Your task to perform on an android device: Search for the best selling books on Target. Image 0: 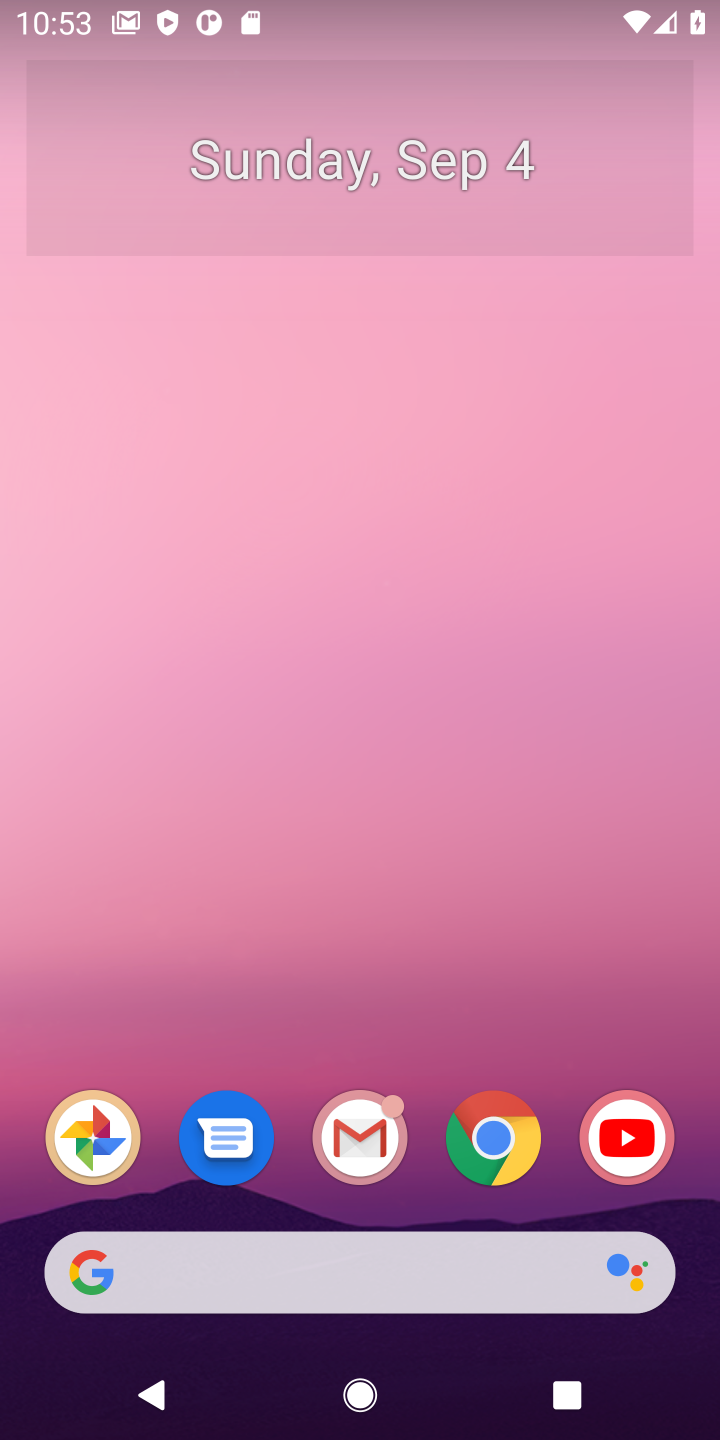
Step 0: click (479, 1162)
Your task to perform on an android device: Search for the best selling books on Target. Image 1: 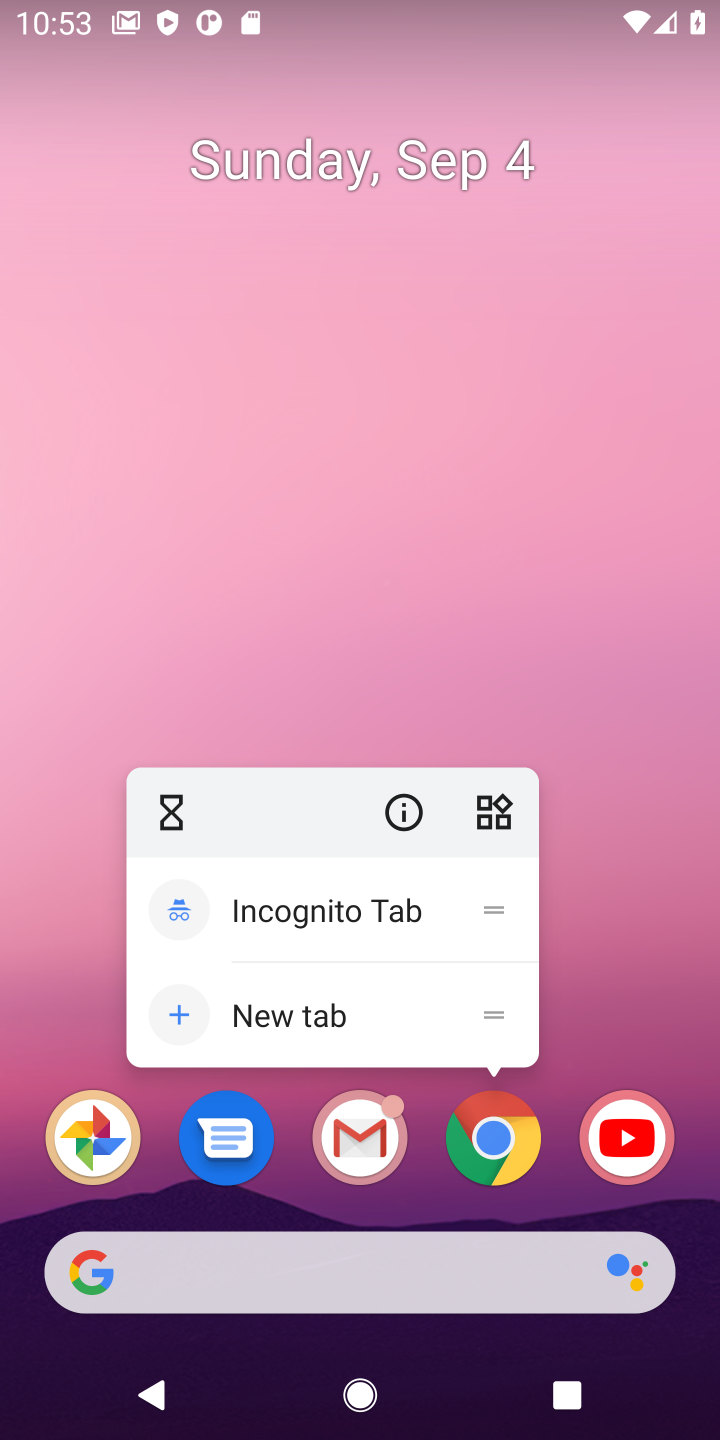
Step 1: click (507, 1148)
Your task to perform on an android device: Search for the best selling books on Target. Image 2: 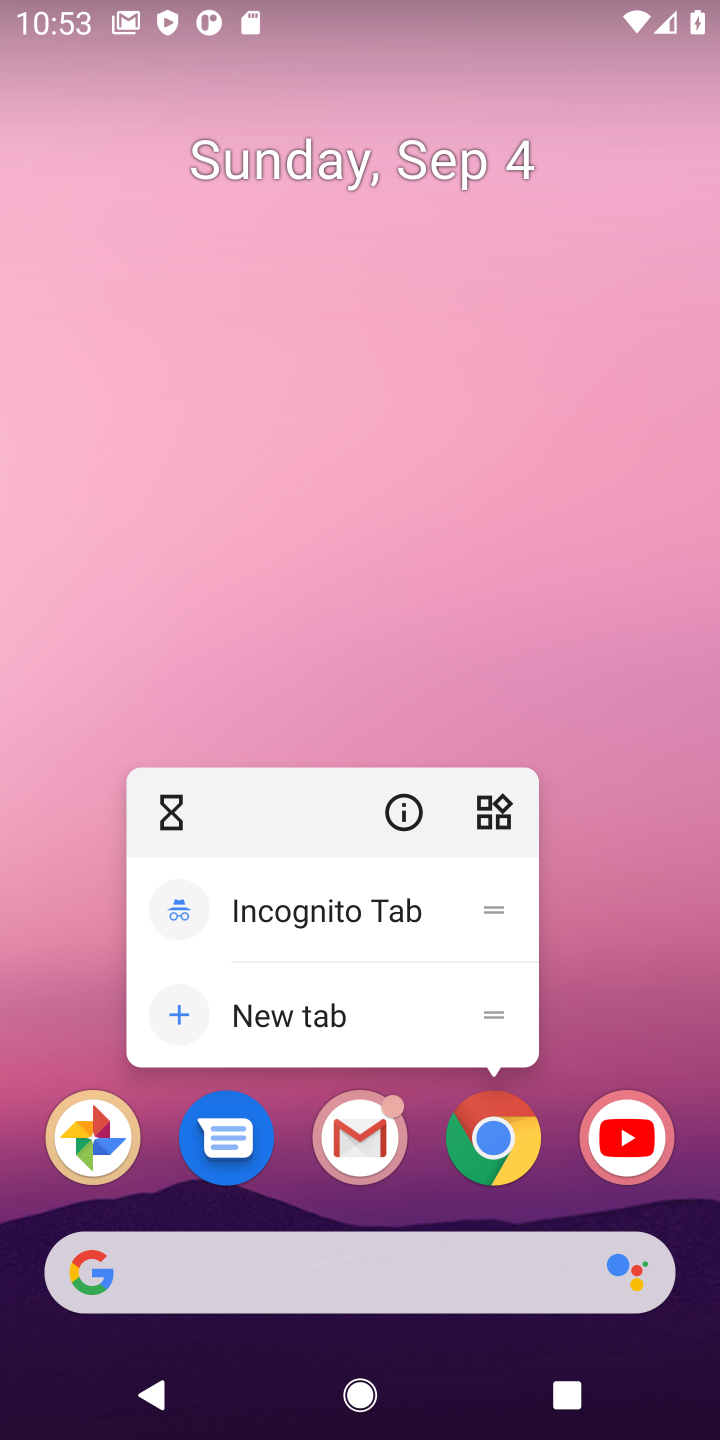
Step 2: click (495, 1170)
Your task to perform on an android device: Search for the best selling books on Target. Image 3: 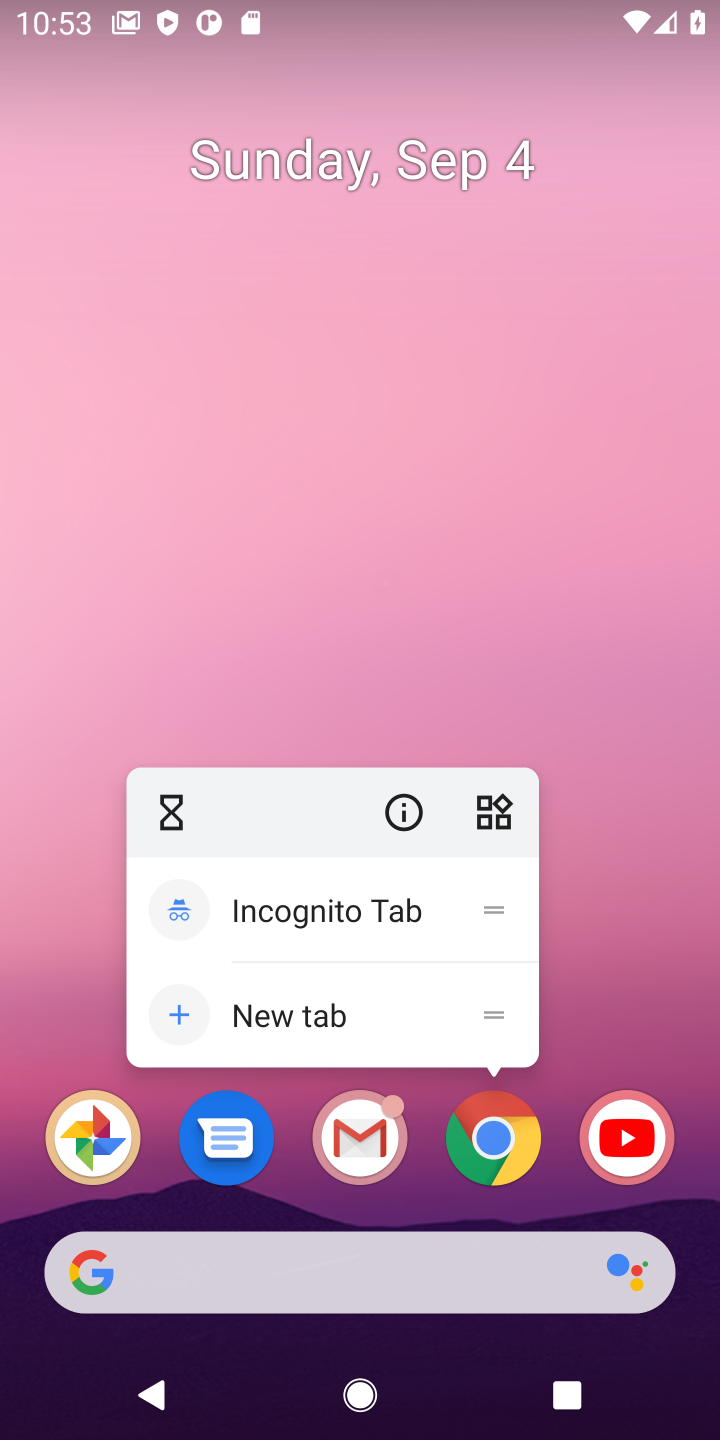
Step 3: click (490, 1139)
Your task to perform on an android device: Search for the best selling books on Target. Image 4: 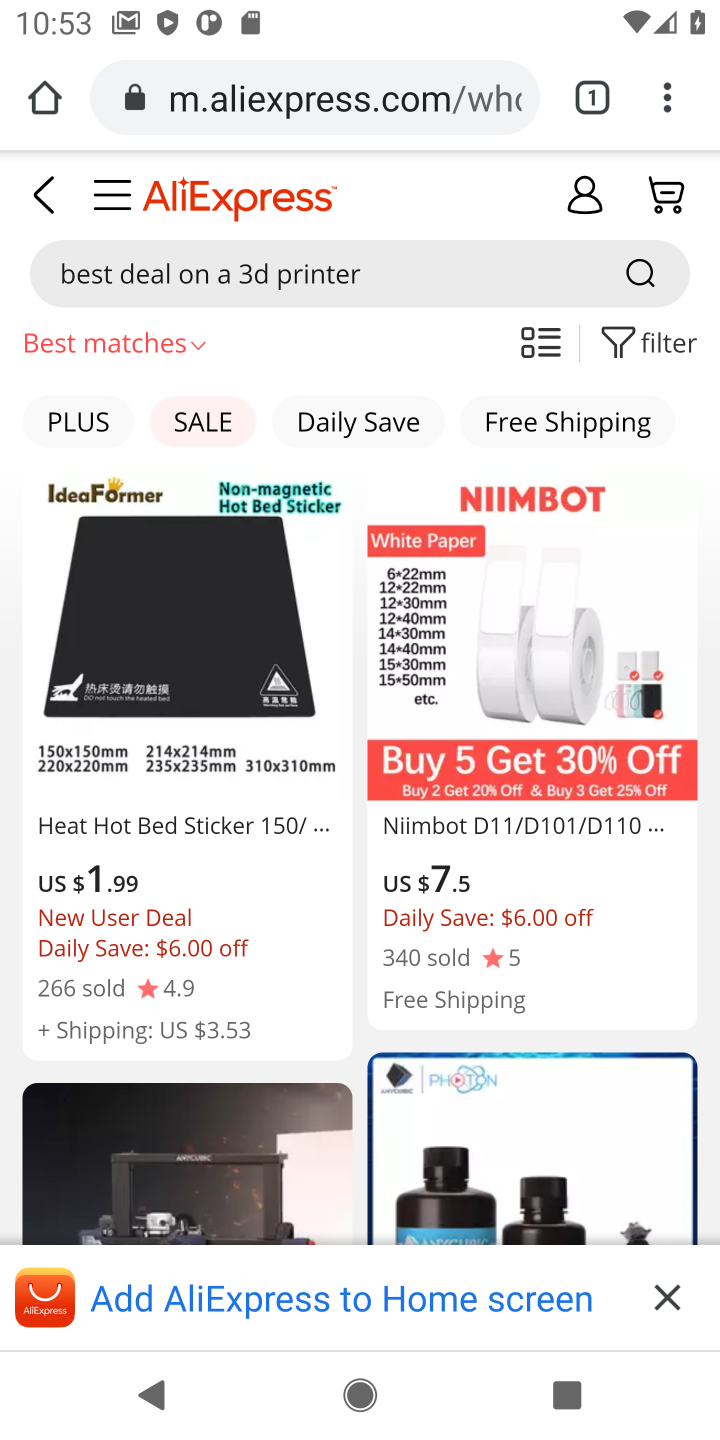
Step 4: click (365, 103)
Your task to perform on an android device: Search for the best selling books on Target. Image 5: 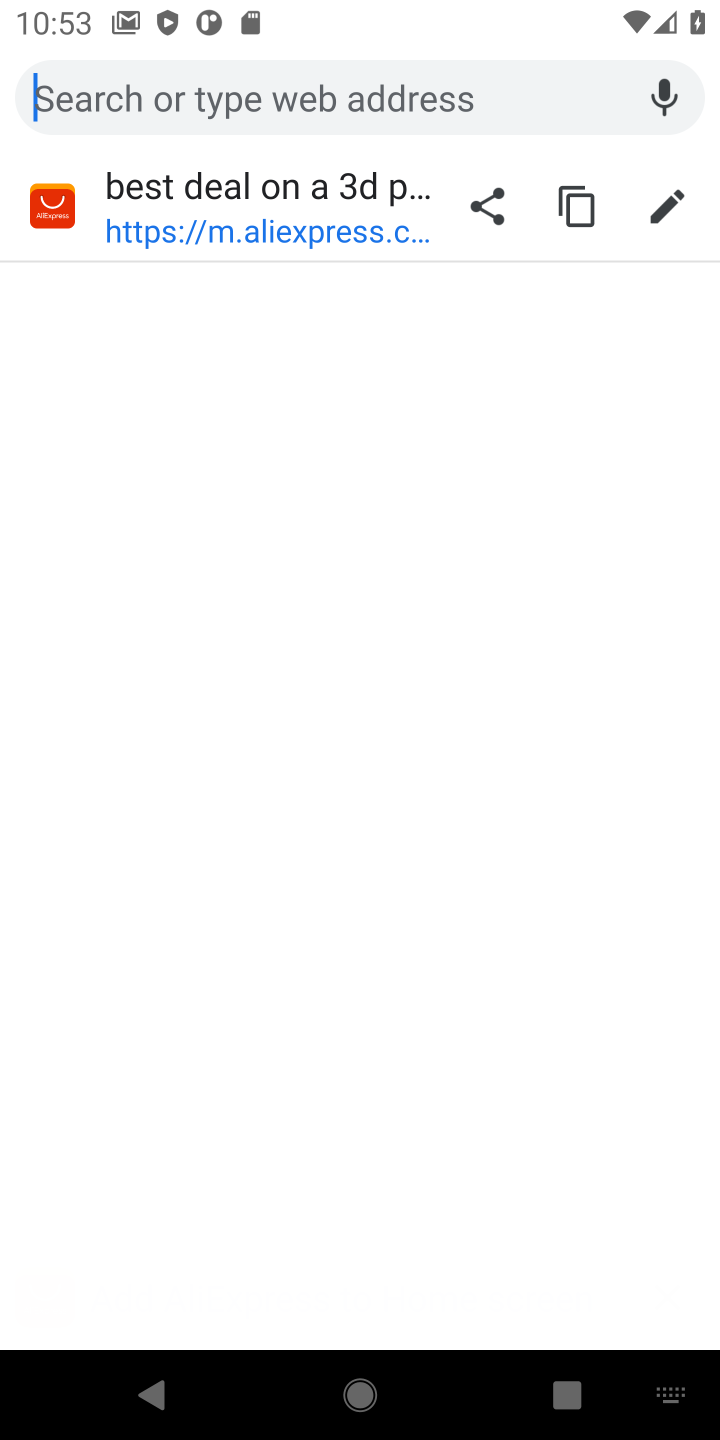
Step 5: type "target"
Your task to perform on an android device: Search for the best selling books on Target. Image 6: 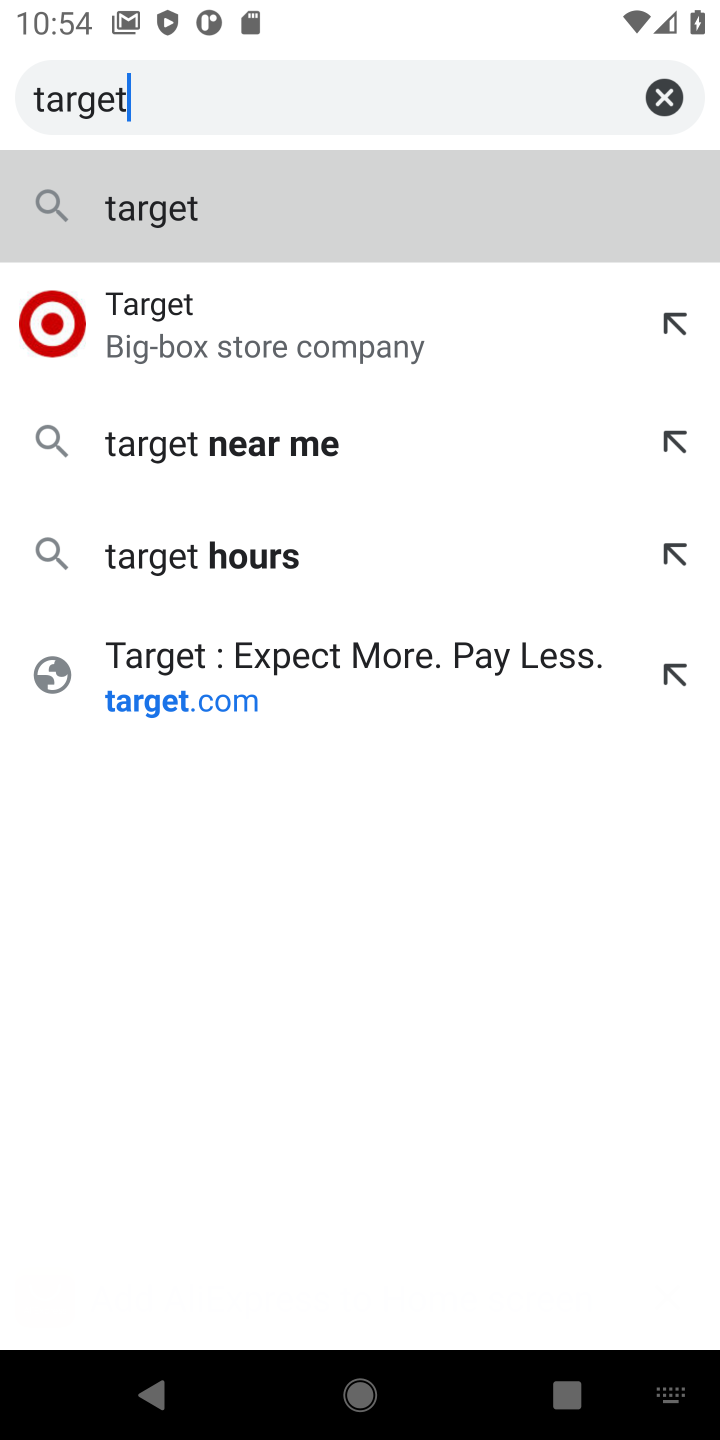
Step 6: click (292, 680)
Your task to perform on an android device: Search for the best selling books on Target. Image 7: 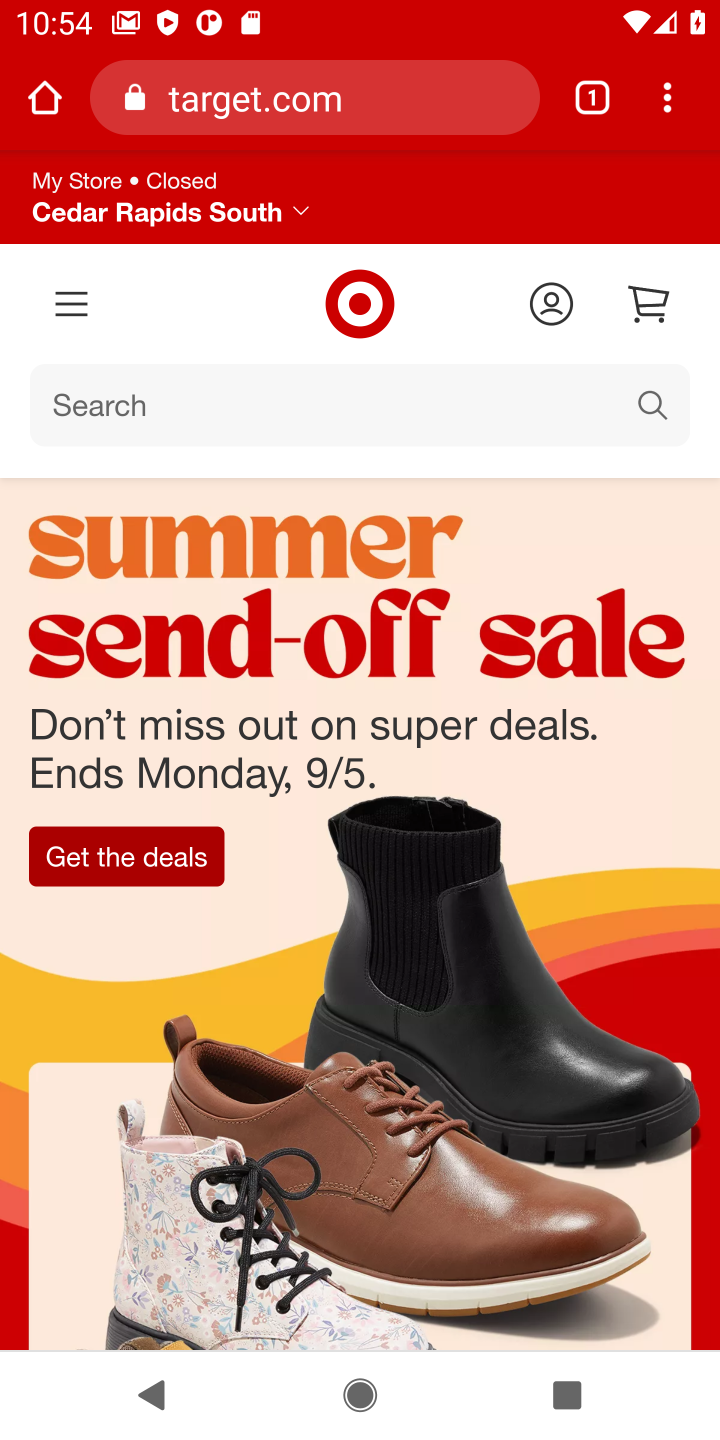
Step 7: click (306, 403)
Your task to perform on an android device: Search for the best selling books on Target. Image 8: 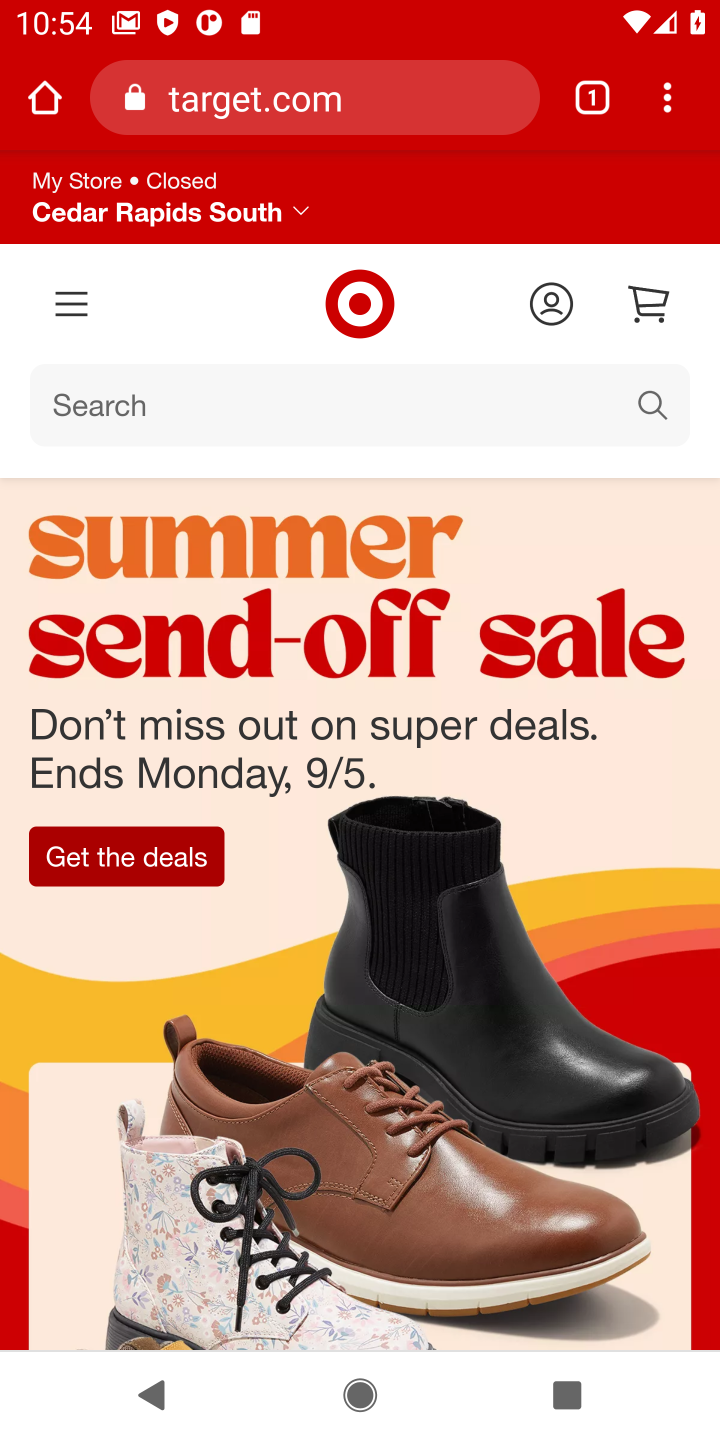
Step 8: type "best selling books"
Your task to perform on an android device: Search for the best selling books on Target. Image 9: 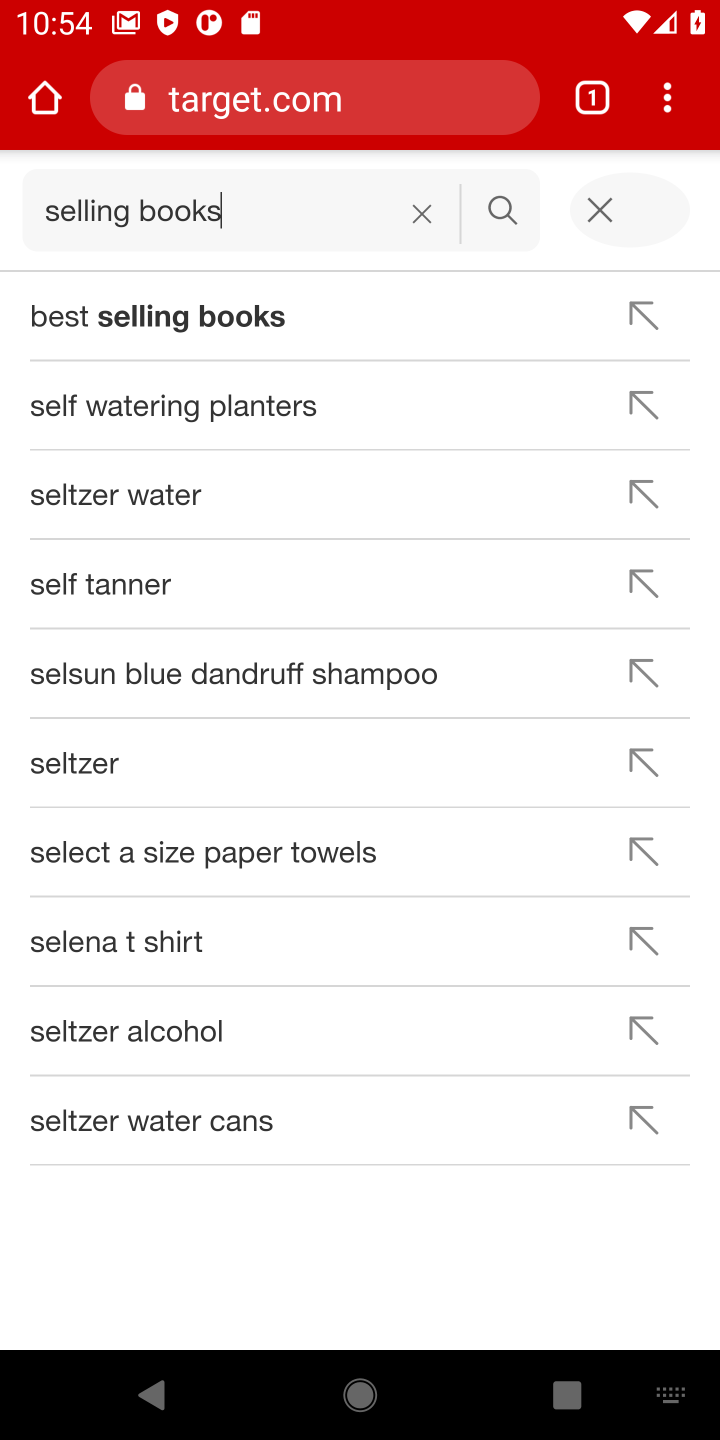
Step 9: click (298, 310)
Your task to perform on an android device: Search for the best selling books on Target. Image 10: 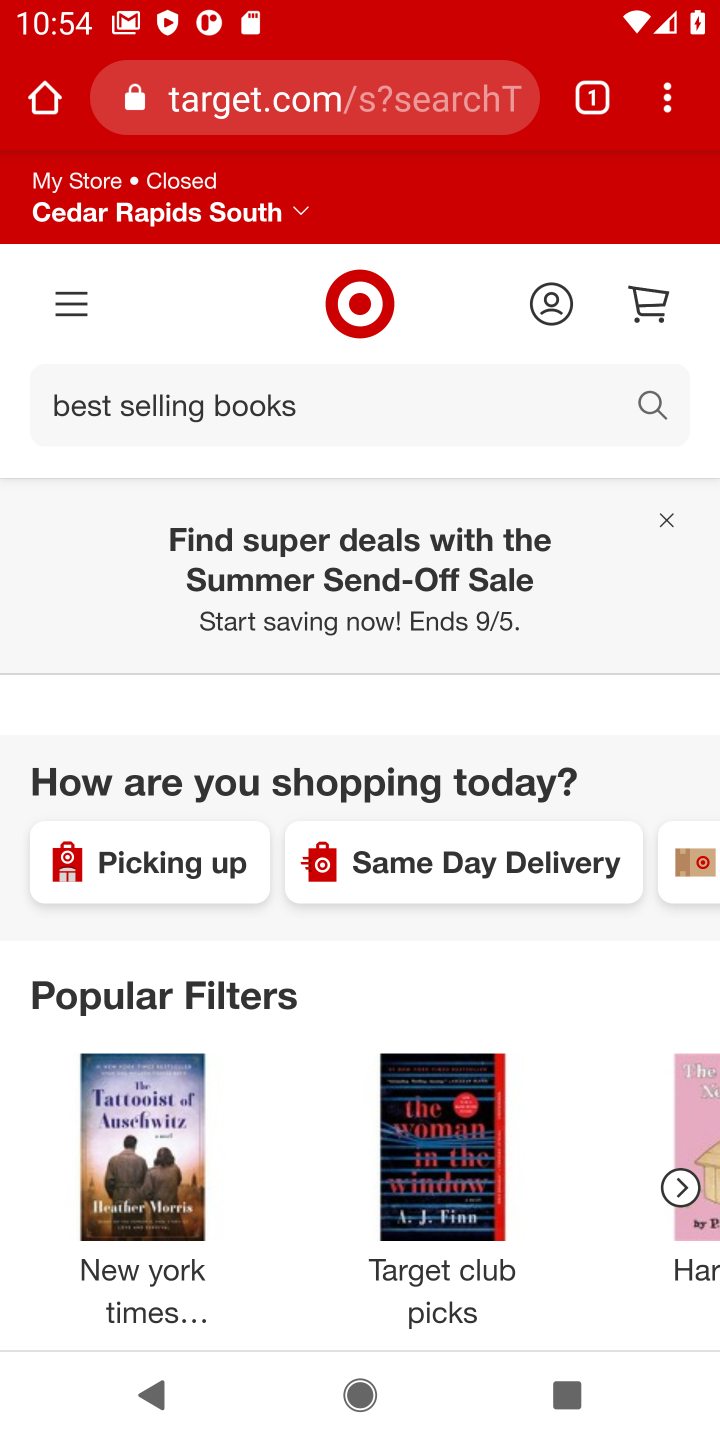
Step 10: task complete